Your task to perform on an android device: Open the web browser Image 0: 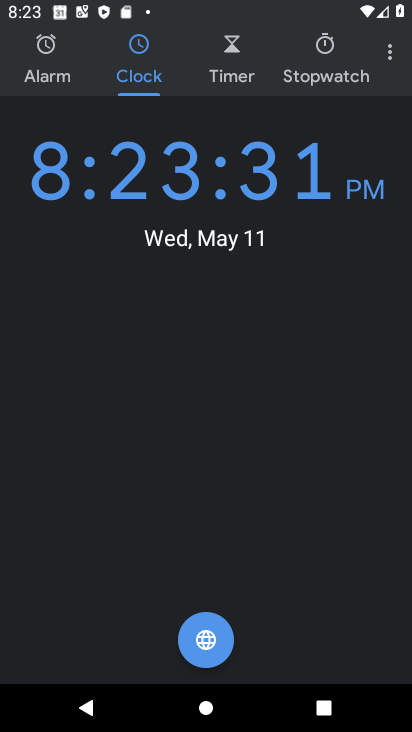
Step 0: press home button
Your task to perform on an android device: Open the web browser Image 1: 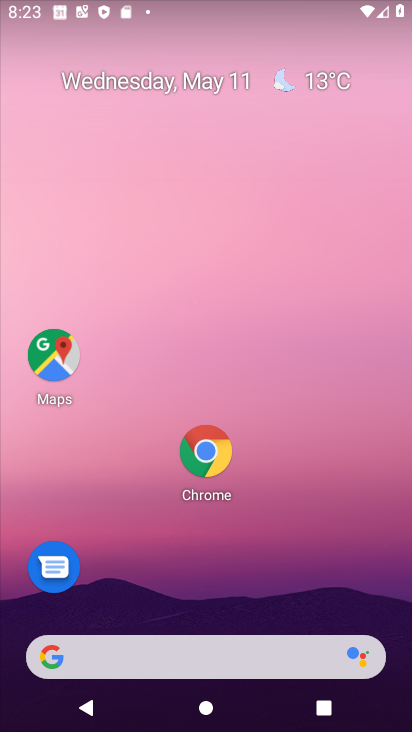
Step 1: click (210, 450)
Your task to perform on an android device: Open the web browser Image 2: 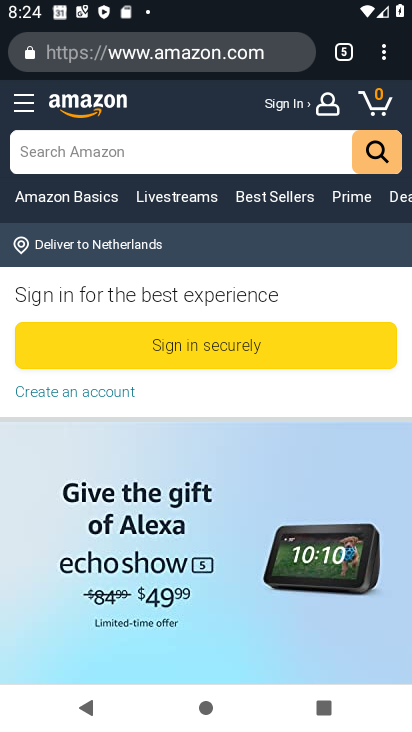
Step 2: task complete